Your task to perform on an android device: Open eBay Image 0: 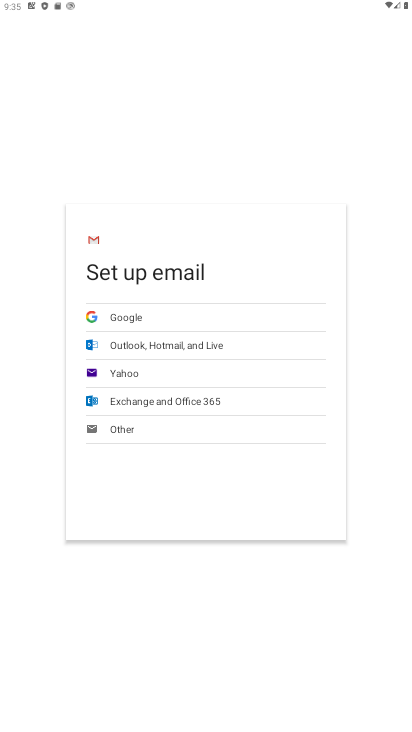
Step 0: press home button
Your task to perform on an android device: Open eBay Image 1: 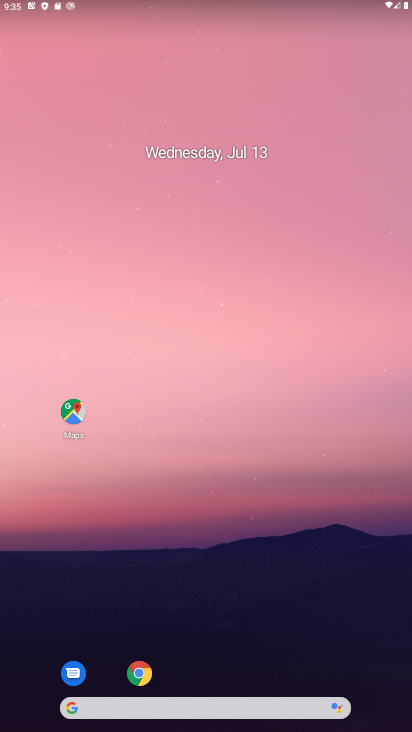
Step 1: click (138, 682)
Your task to perform on an android device: Open eBay Image 2: 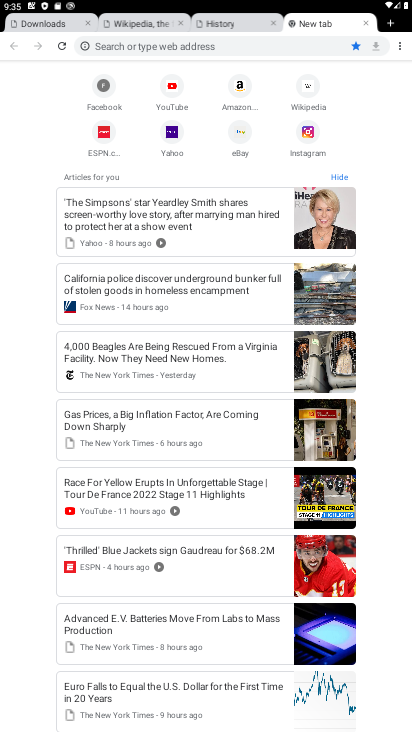
Step 2: click (236, 128)
Your task to perform on an android device: Open eBay Image 3: 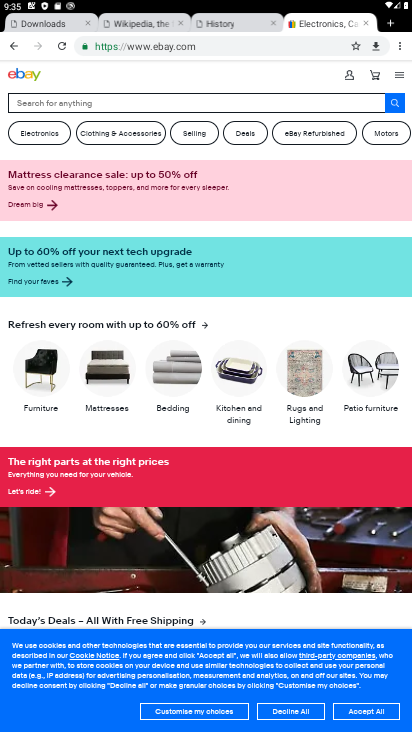
Step 3: task complete